Your task to perform on an android device: delete a single message in the gmail app Image 0: 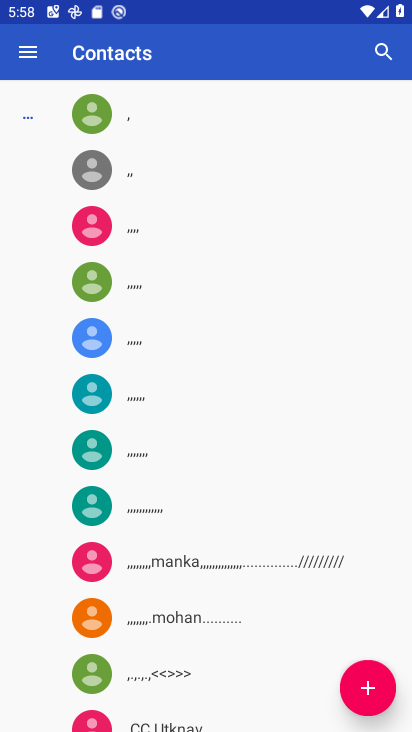
Step 0: press home button
Your task to perform on an android device: delete a single message in the gmail app Image 1: 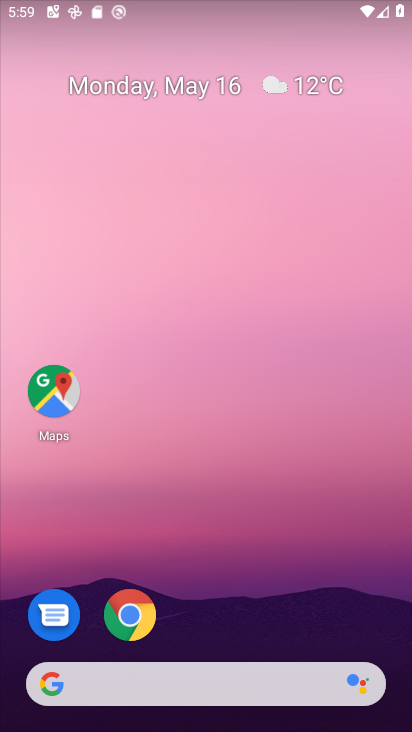
Step 1: drag from (199, 613) to (232, 28)
Your task to perform on an android device: delete a single message in the gmail app Image 2: 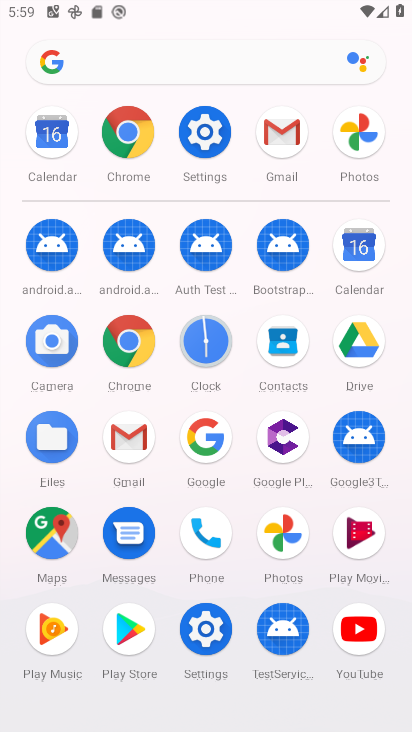
Step 2: click (275, 167)
Your task to perform on an android device: delete a single message in the gmail app Image 3: 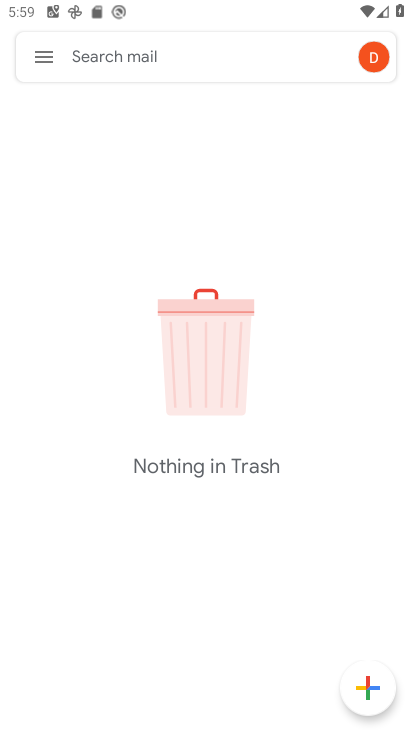
Step 3: click (46, 61)
Your task to perform on an android device: delete a single message in the gmail app Image 4: 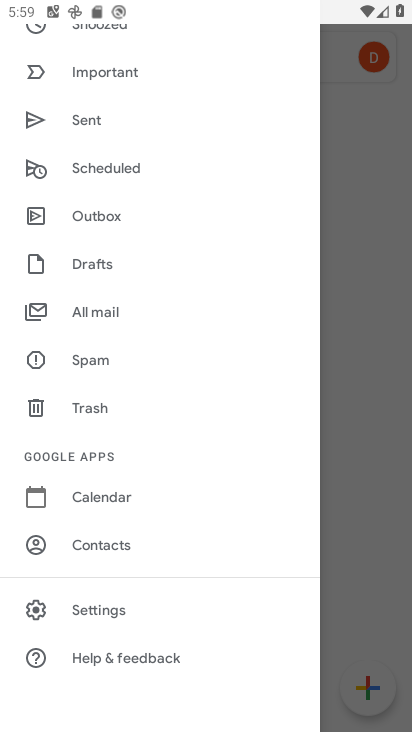
Step 4: click (105, 315)
Your task to perform on an android device: delete a single message in the gmail app Image 5: 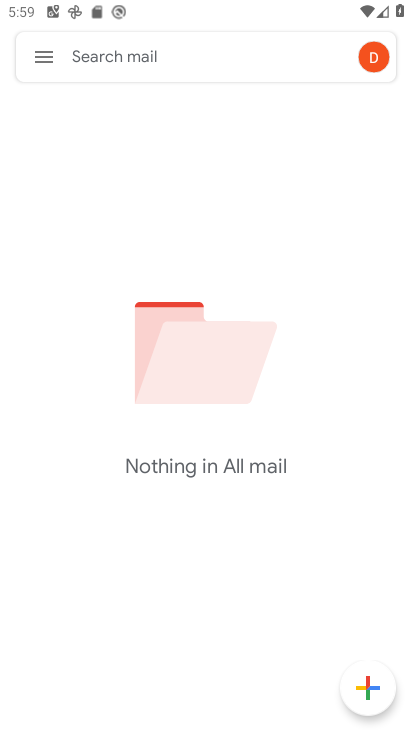
Step 5: task complete